Your task to perform on an android device: Search for razer naga on ebay.com, select the first entry, and add it to the cart. Image 0: 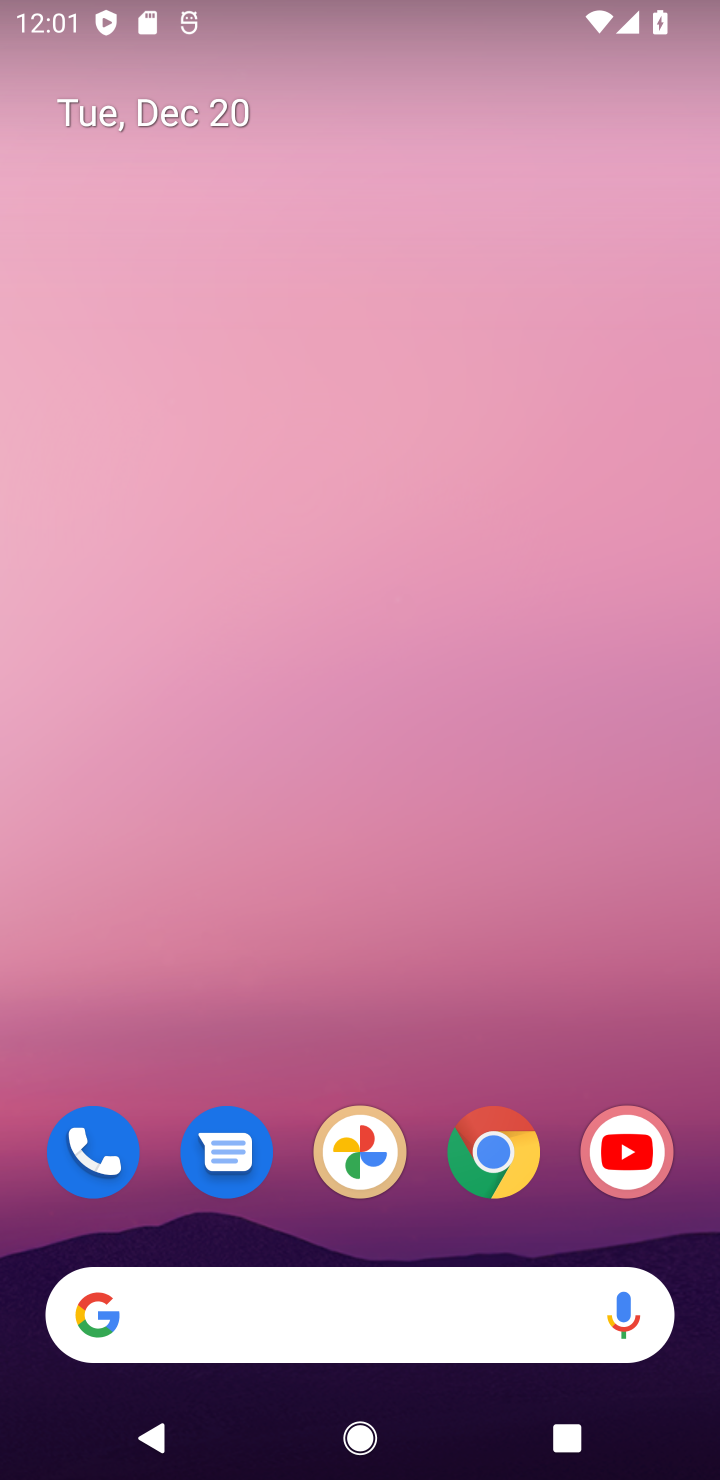
Step 0: click (487, 1167)
Your task to perform on an android device: Search for razer naga on ebay.com, select the first entry, and add it to the cart. Image 1: 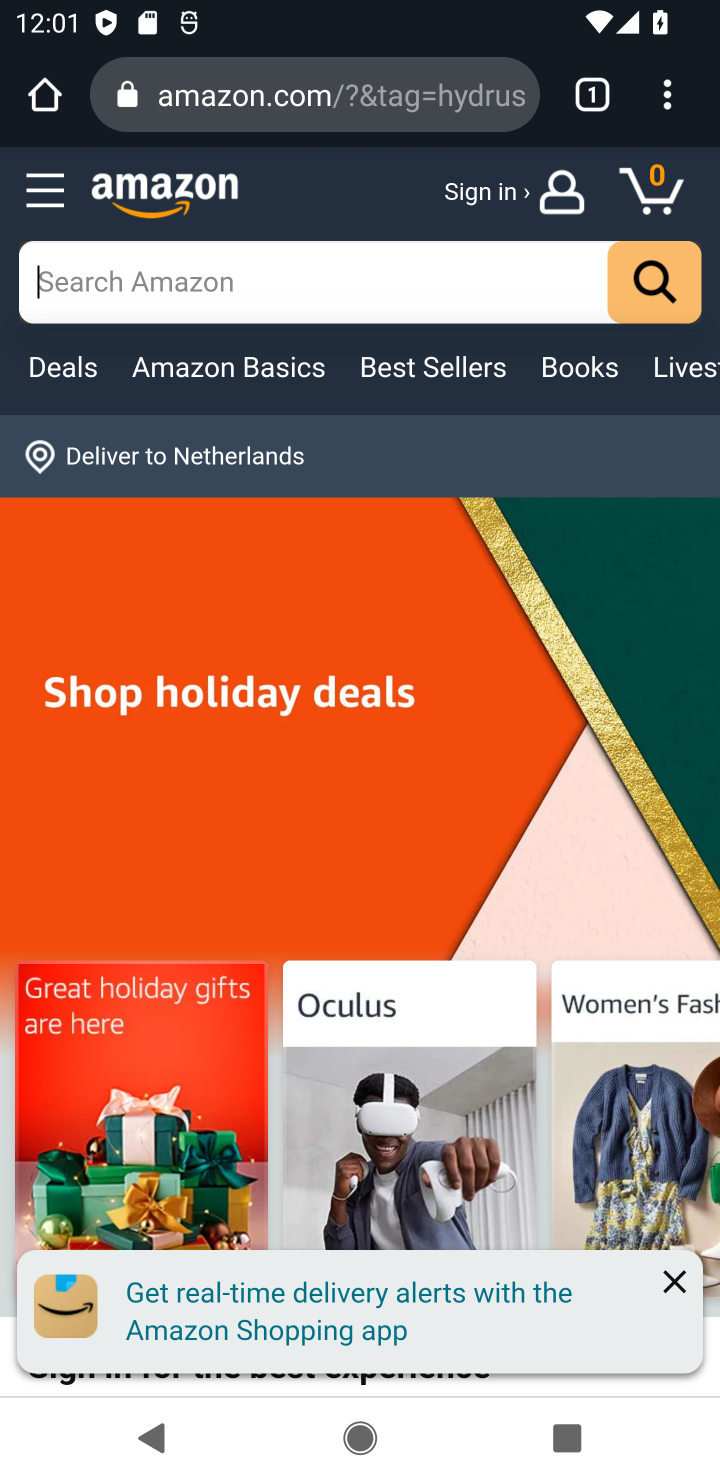
Step 1: click (321, 117)
Your task to perform on an android device: Search for razer naga on ebay.com, select the first entry, and add it to the cart. Image 2: 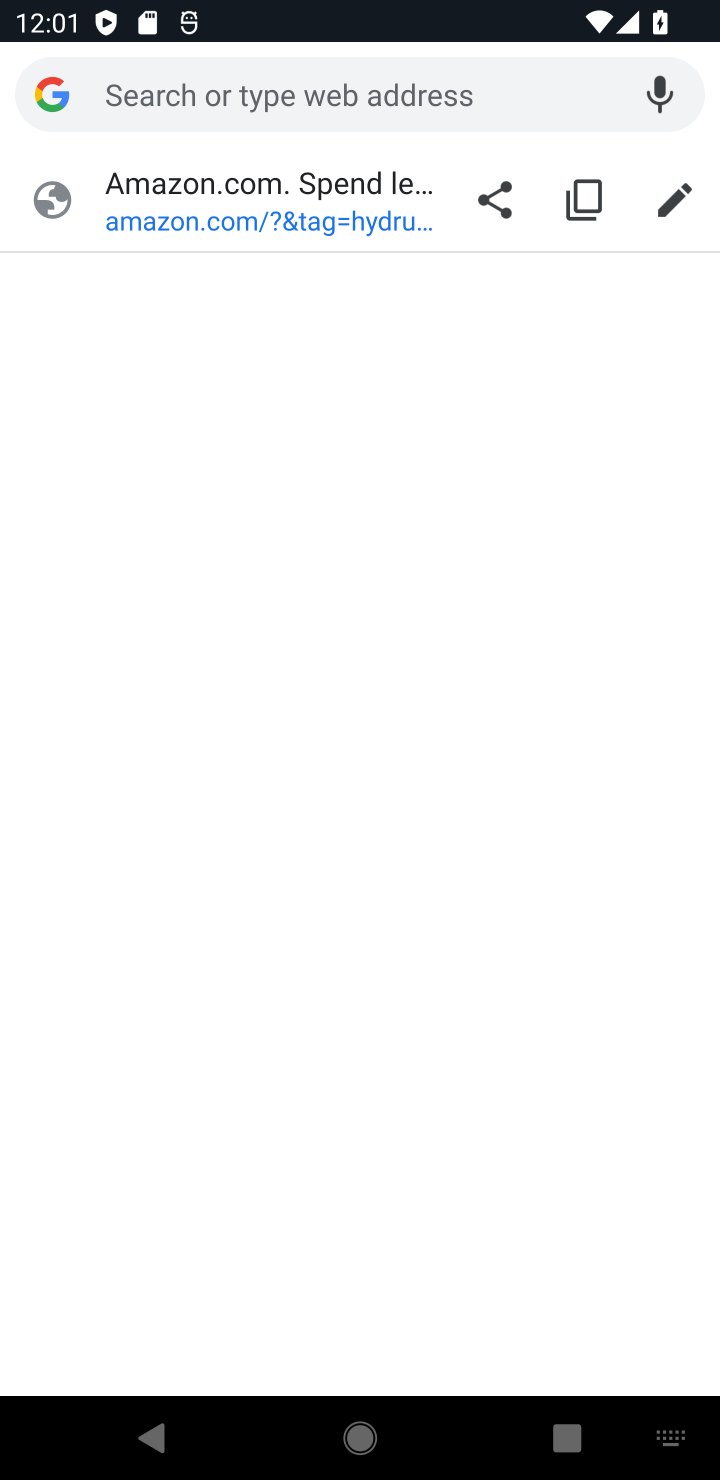
Step 2: type "ebay"
Your task to perform on an android device: Search for razer naga on ebay.com, select the first entry, and add it to the cart. Image 3: 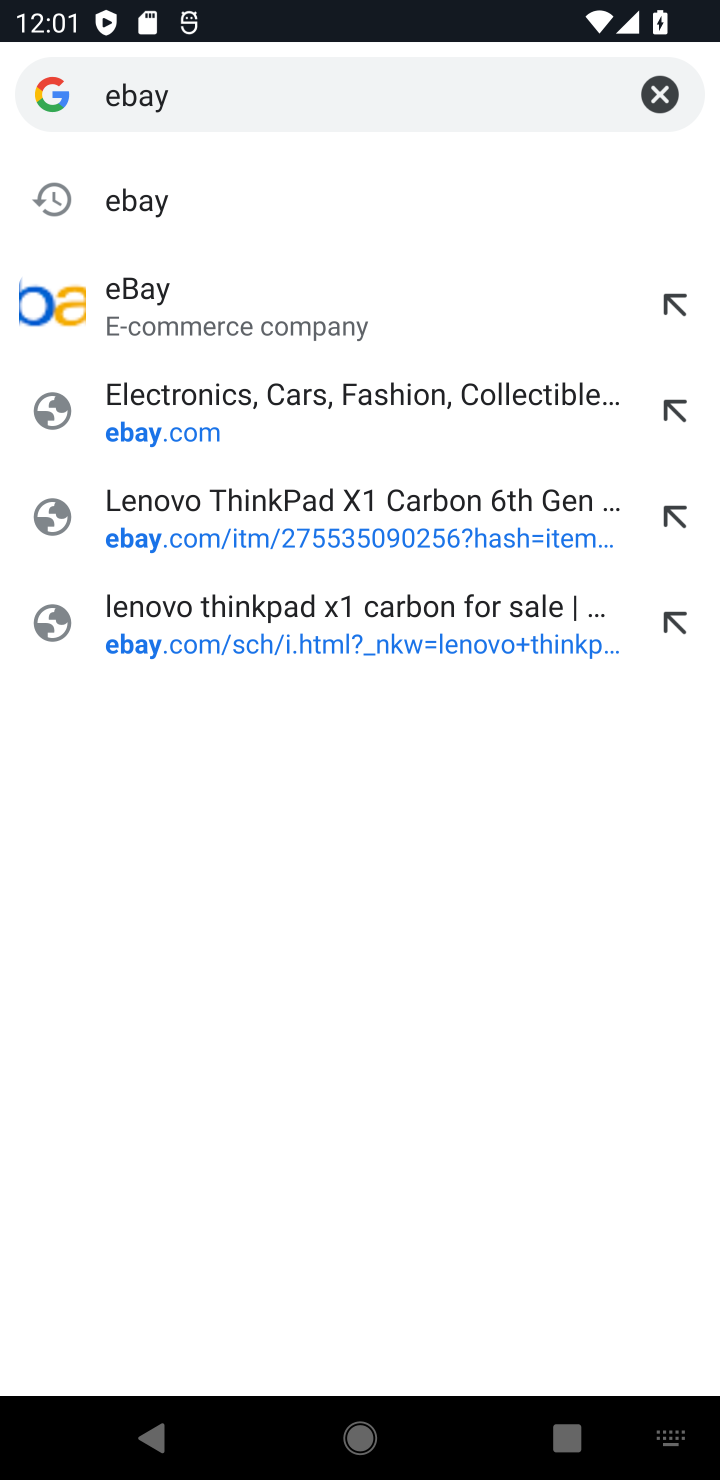
Step 3: click (325, 325)
Your task to perform on an android device: Search for razer naga on ebay.com, select the first entry, and add it to the cart. Image 4: 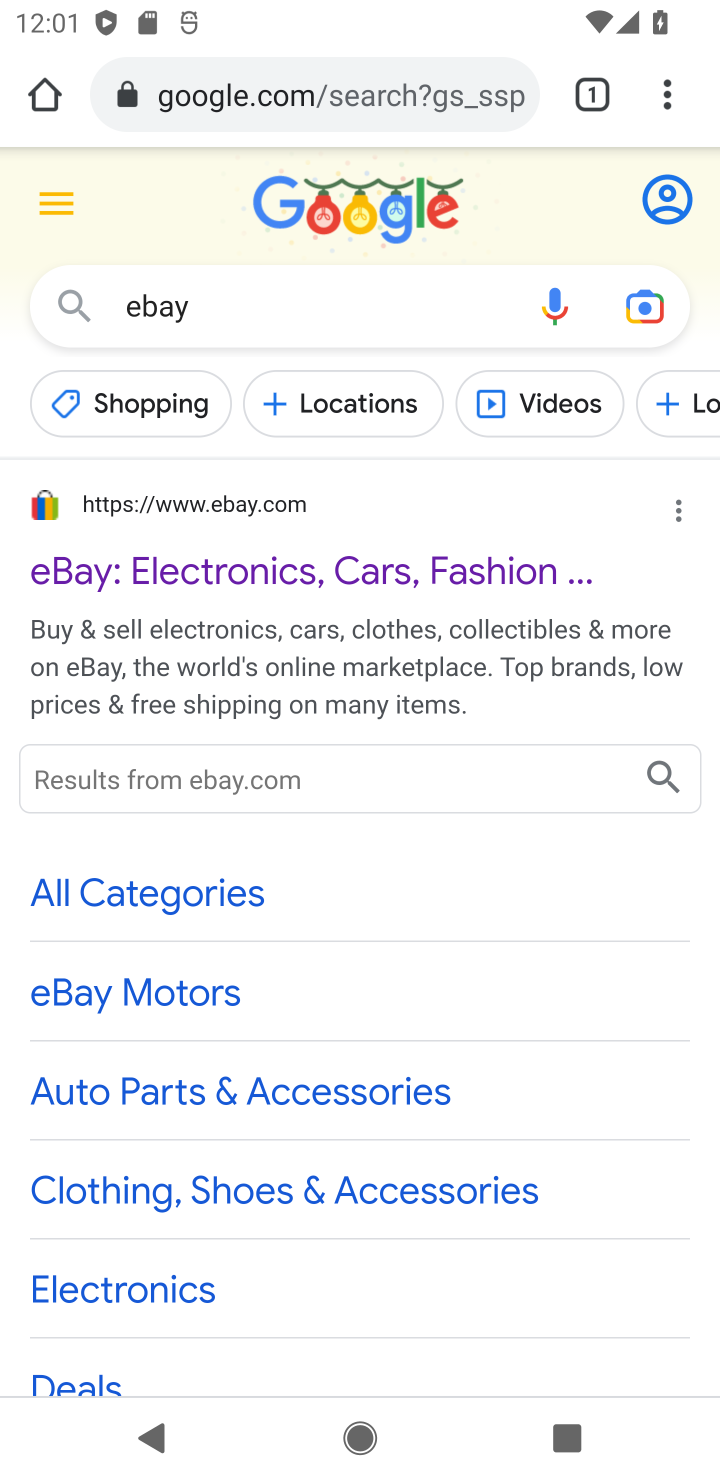
Step 4: click (241, 580)
Your task to perform on an android device: Search for razer naga on ebay.com, select the first entry, and add it to the cart. Image 5: 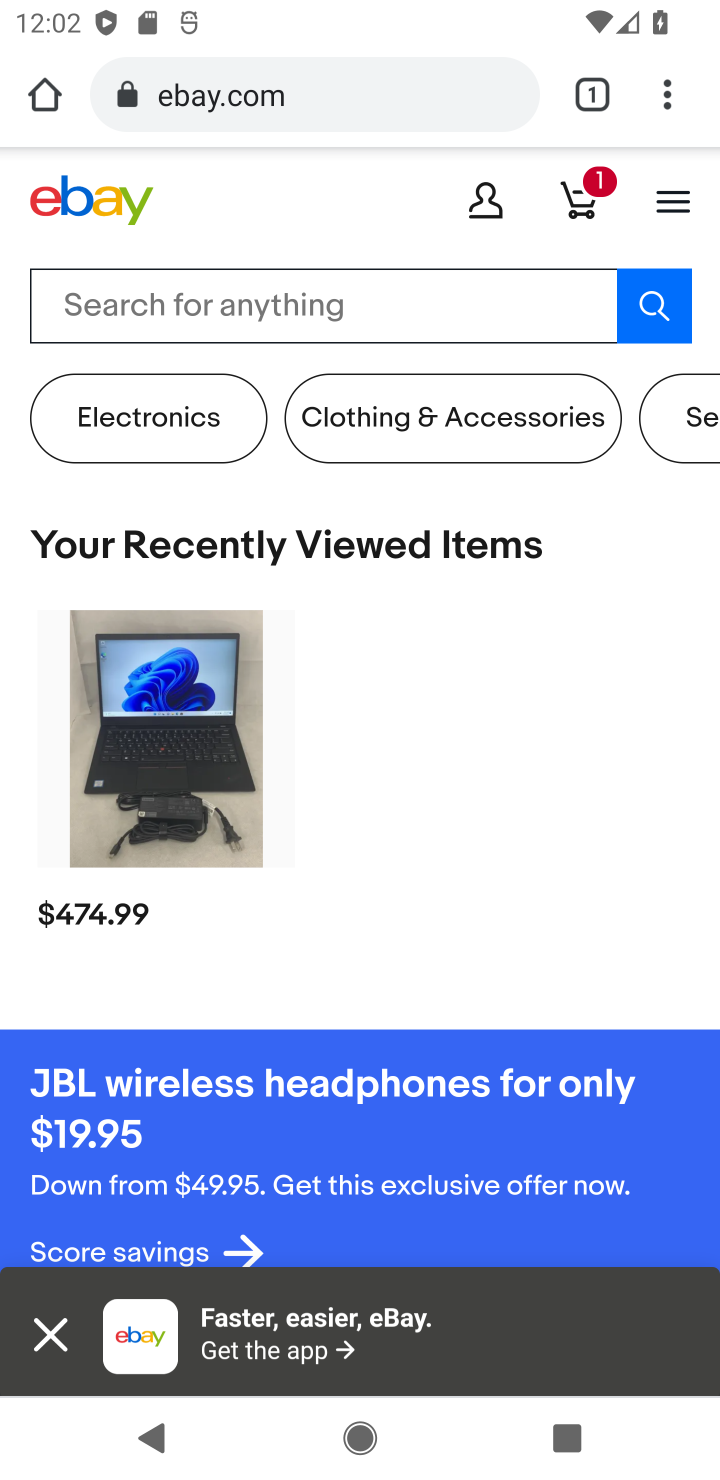
Step 5: click (501, 293)
Your task to perform on an android device: Search for razer naga on ebay.com, select the first entry, and add it to the cart. Image 6: 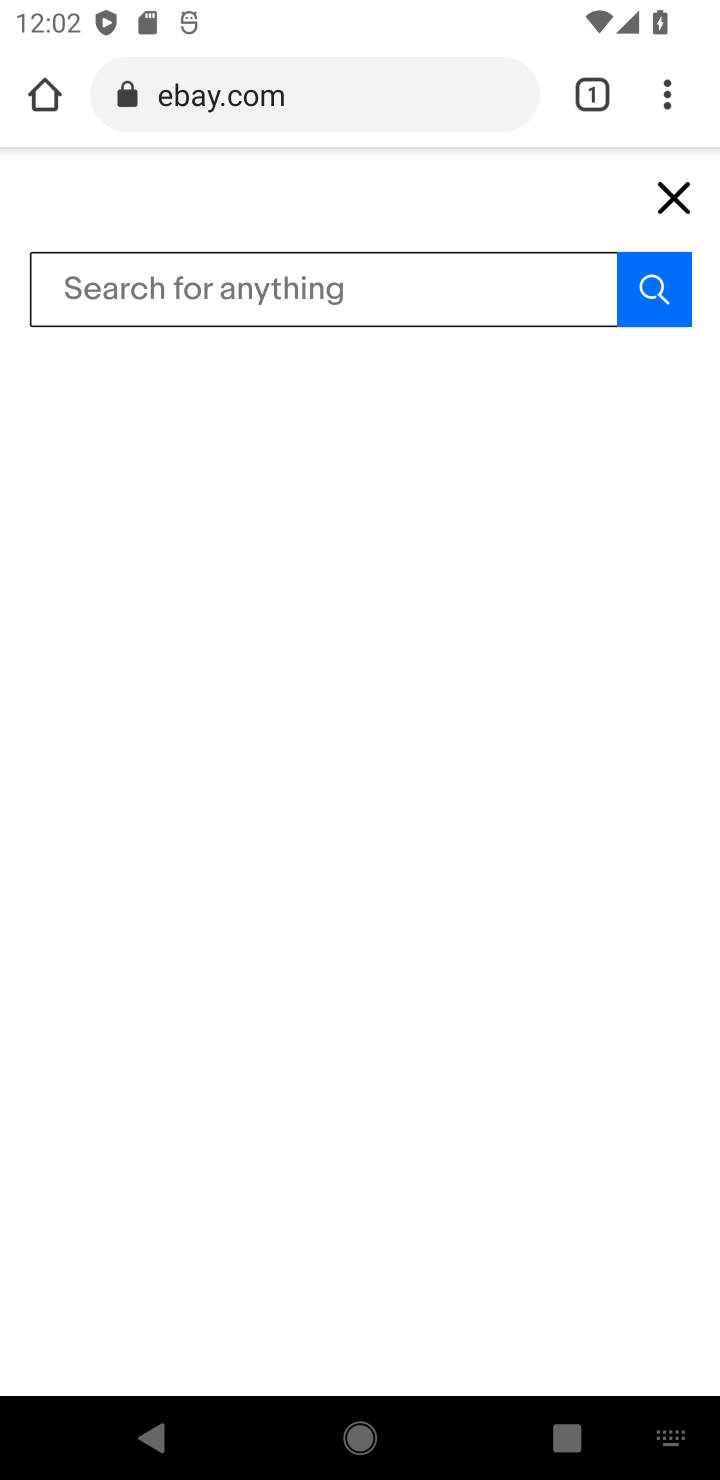
Step 6: type "razer naga"
Your task to perform on an android device: Search for razer naga on ebay.com, select the first entry, and add it to the cart. Image 7: 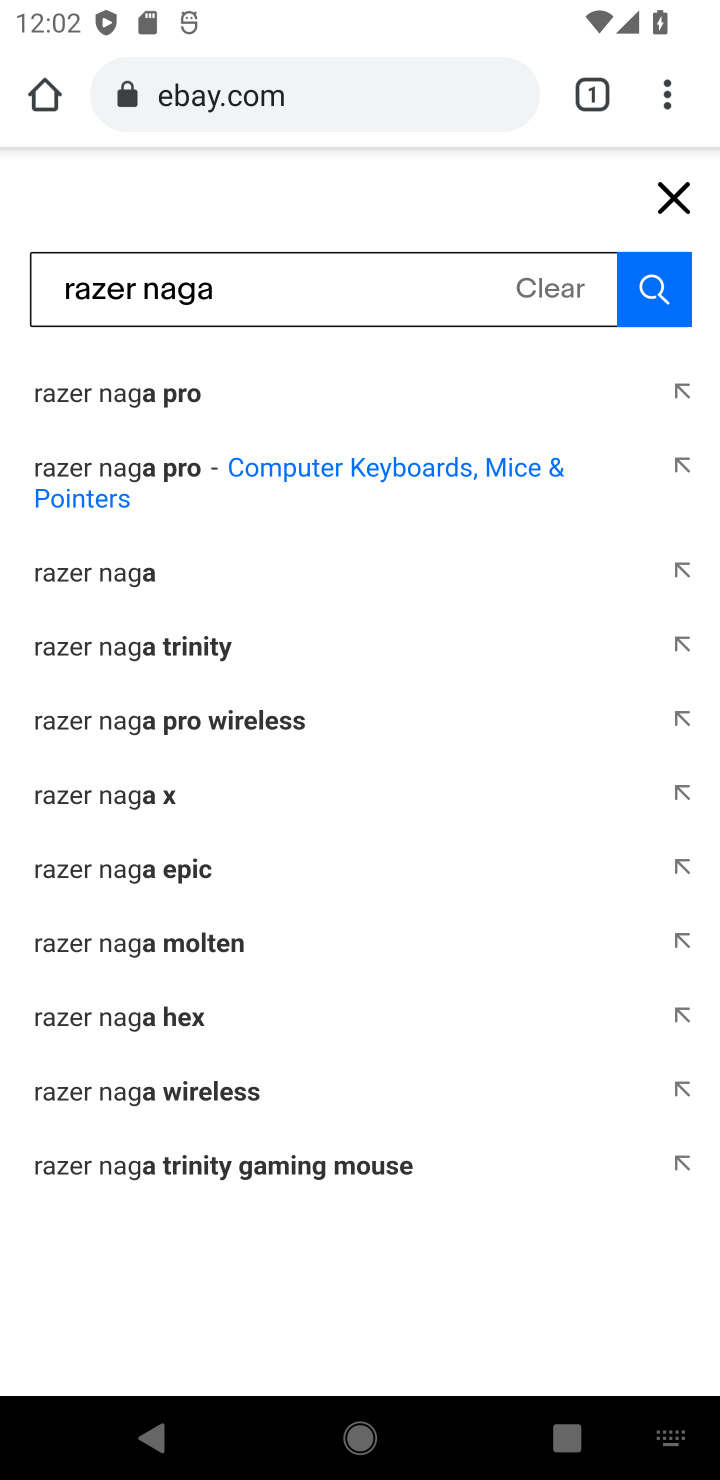
Step 7: click (201, 393)
Your task to perform on an android device: Search for razer naga on ebay.com, select the first entry, and add it to the cart. Image 8: 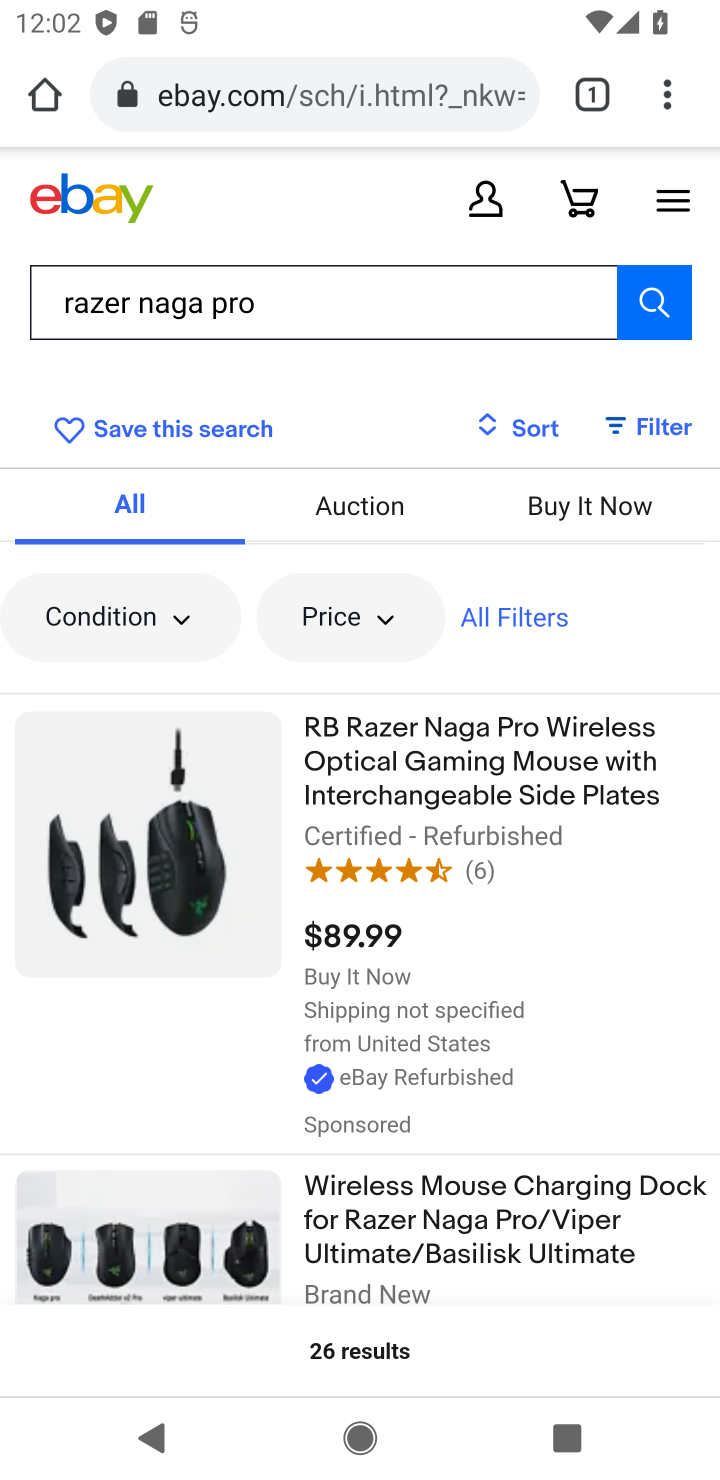
Step 8: click (426, 782)
Your task to perform on an android device: Search for razer naga on ebay.com, select the first entry, and add it to the cart. Image 9: 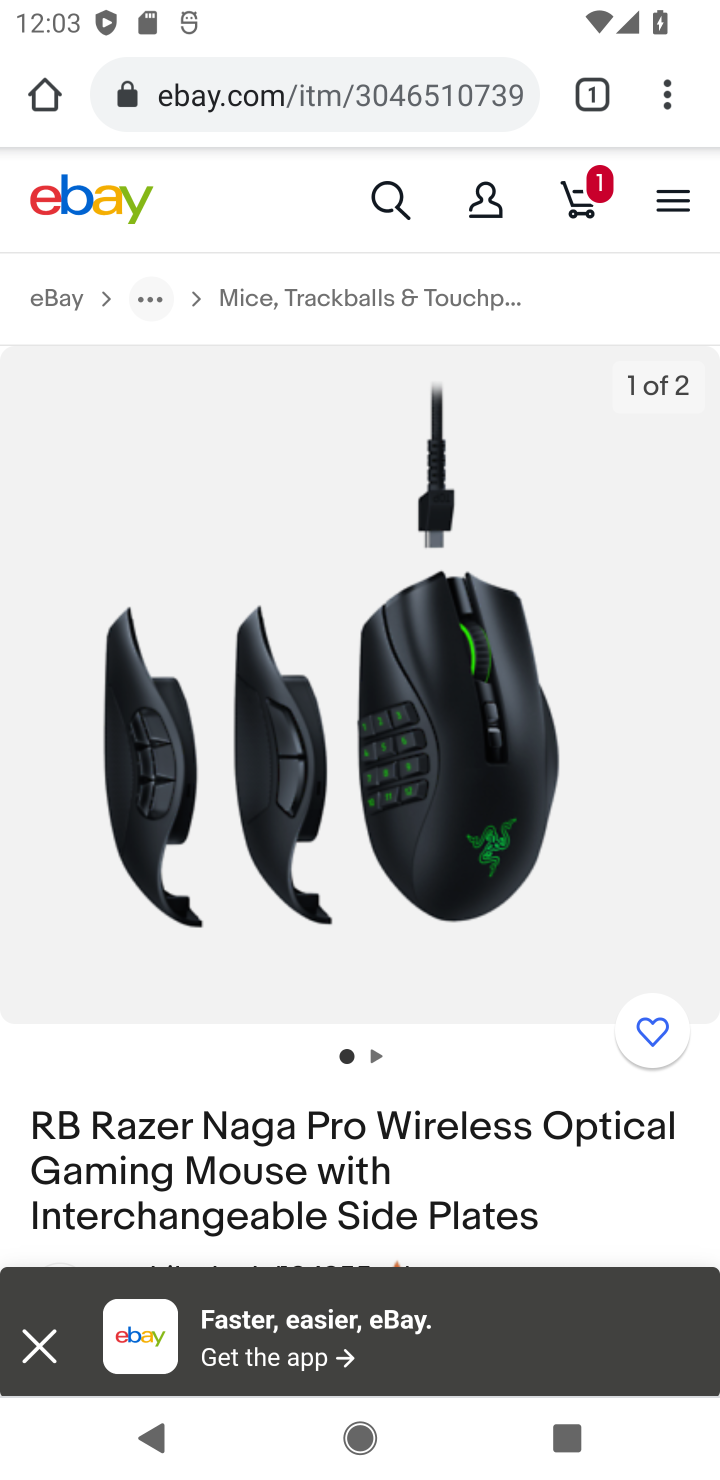
Step 9: drag from (499, 1144) to (477, 594)
Your task to perform on an android device: Search for razer naga on ebay.com, select the first entry, and add it to the cart. Image 10: 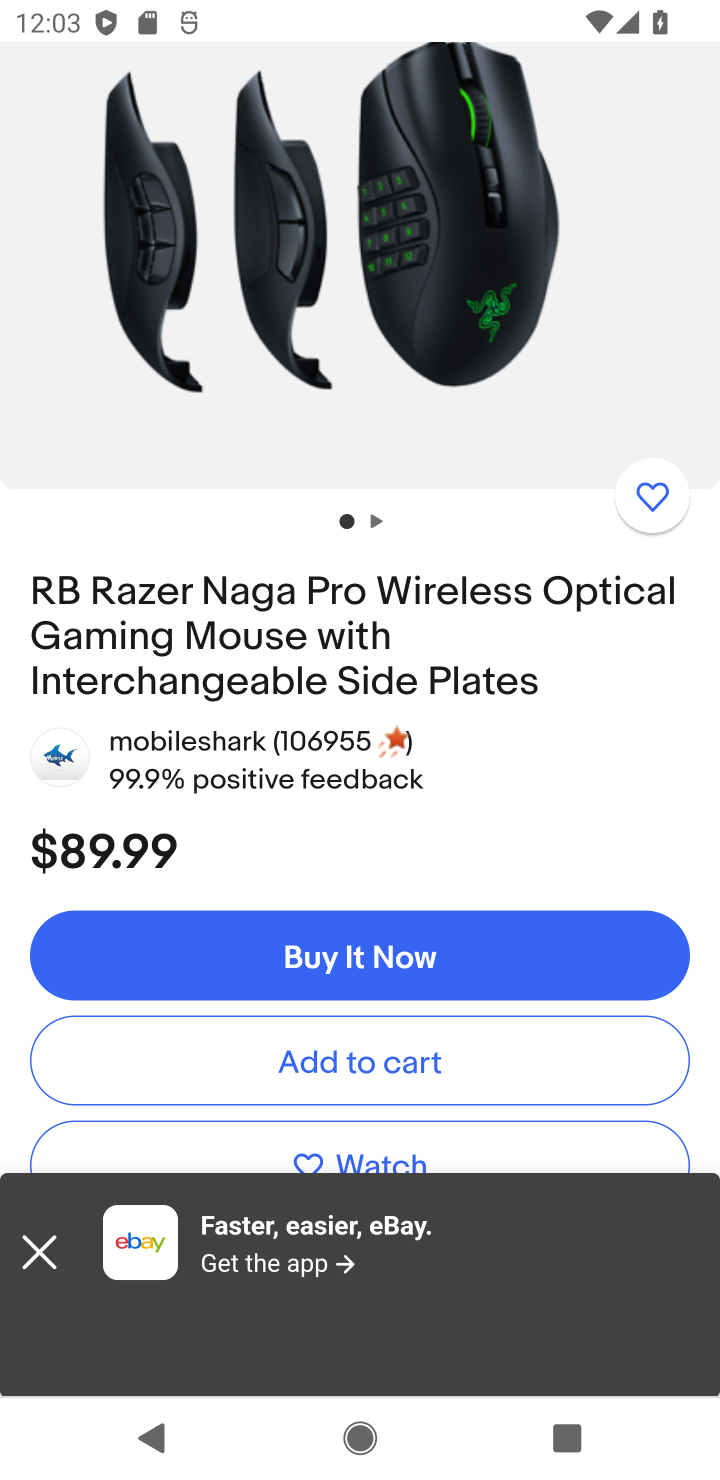
Step 10: click (365, 1065)
Your task to perform on an android device: Search for razer naga on ebay.com, select the first entry, and add it to the cart. Image 11: 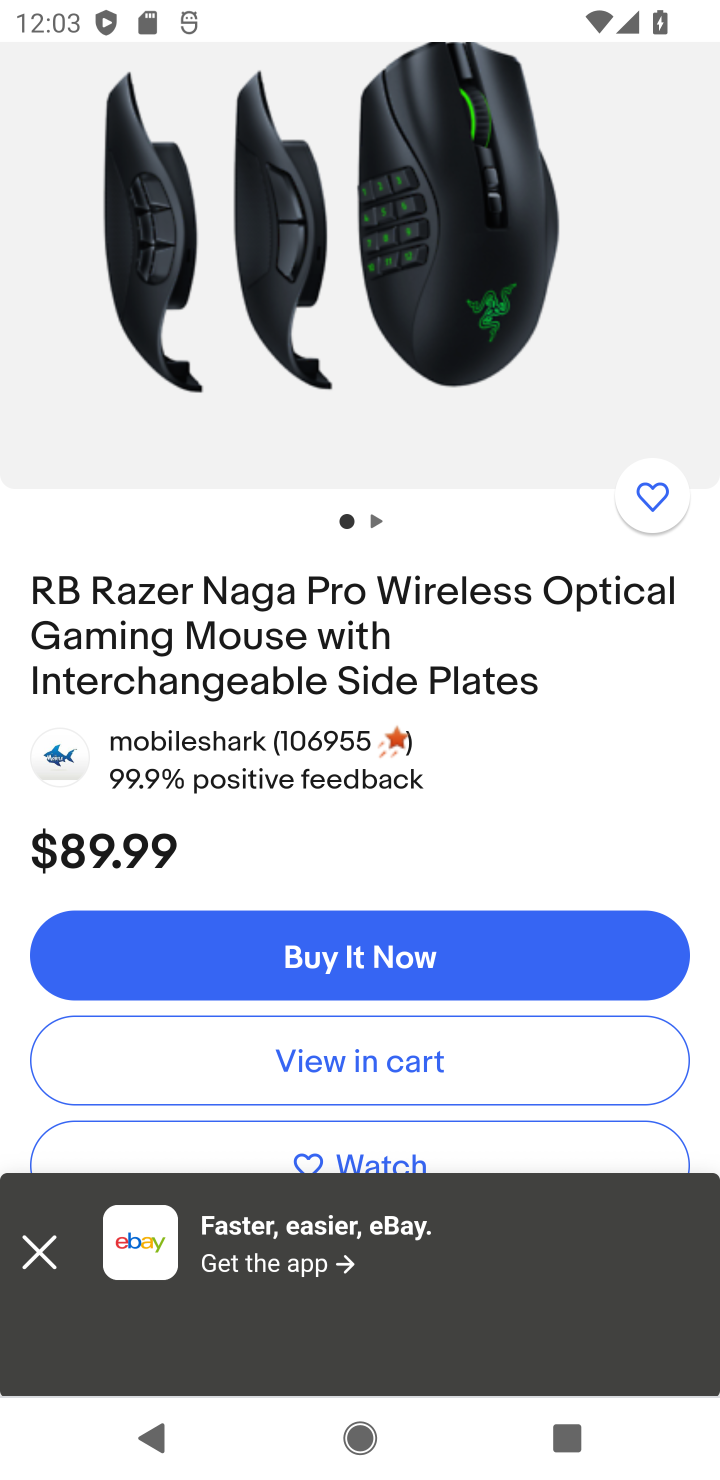
Step 11: click (365, 1065)
Your task to perform on an android device: Search for razer naga on ebay.com, select the first entry, and add it to the cart. Image 12: 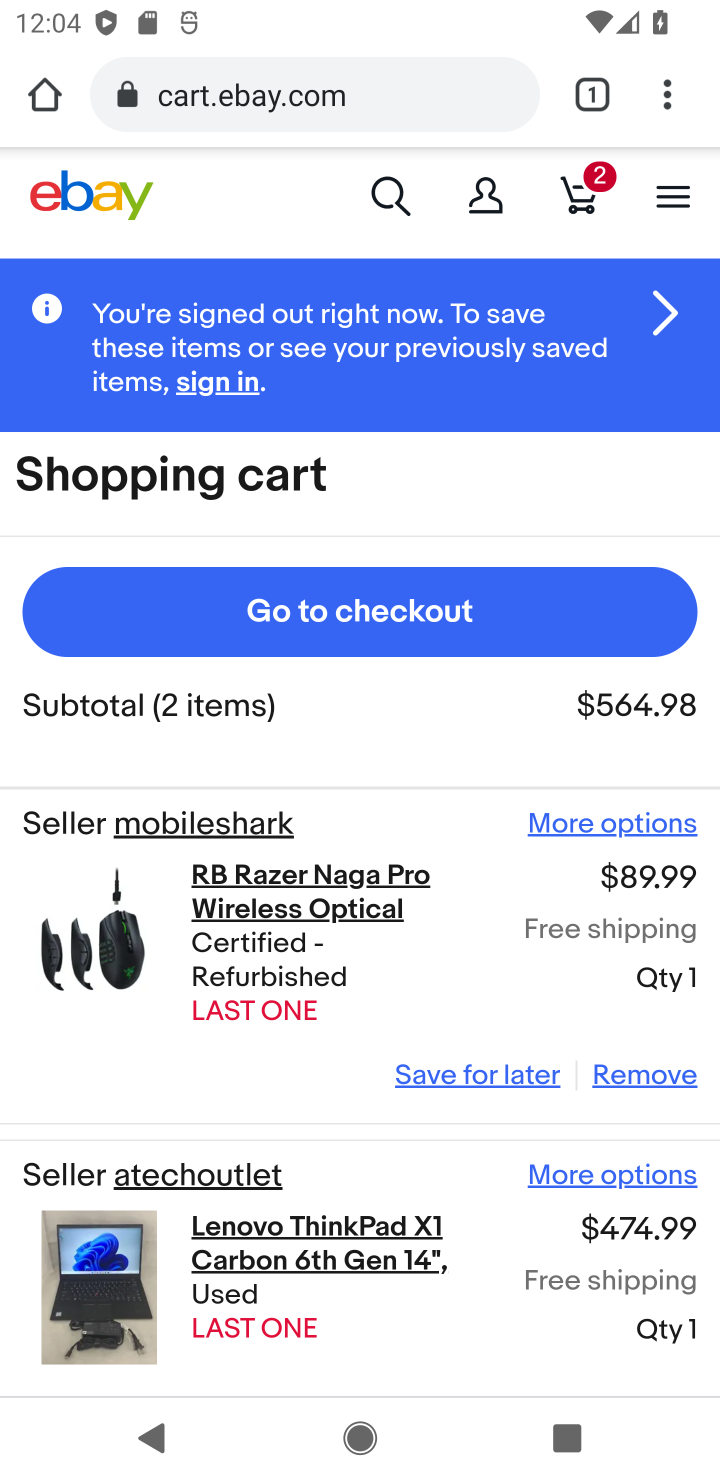
Step 12: click (632, 1075)
Your task to perform on an android device: Search for razer naga on ebay.com, select the first entry, and add it to the cart. Image 13: 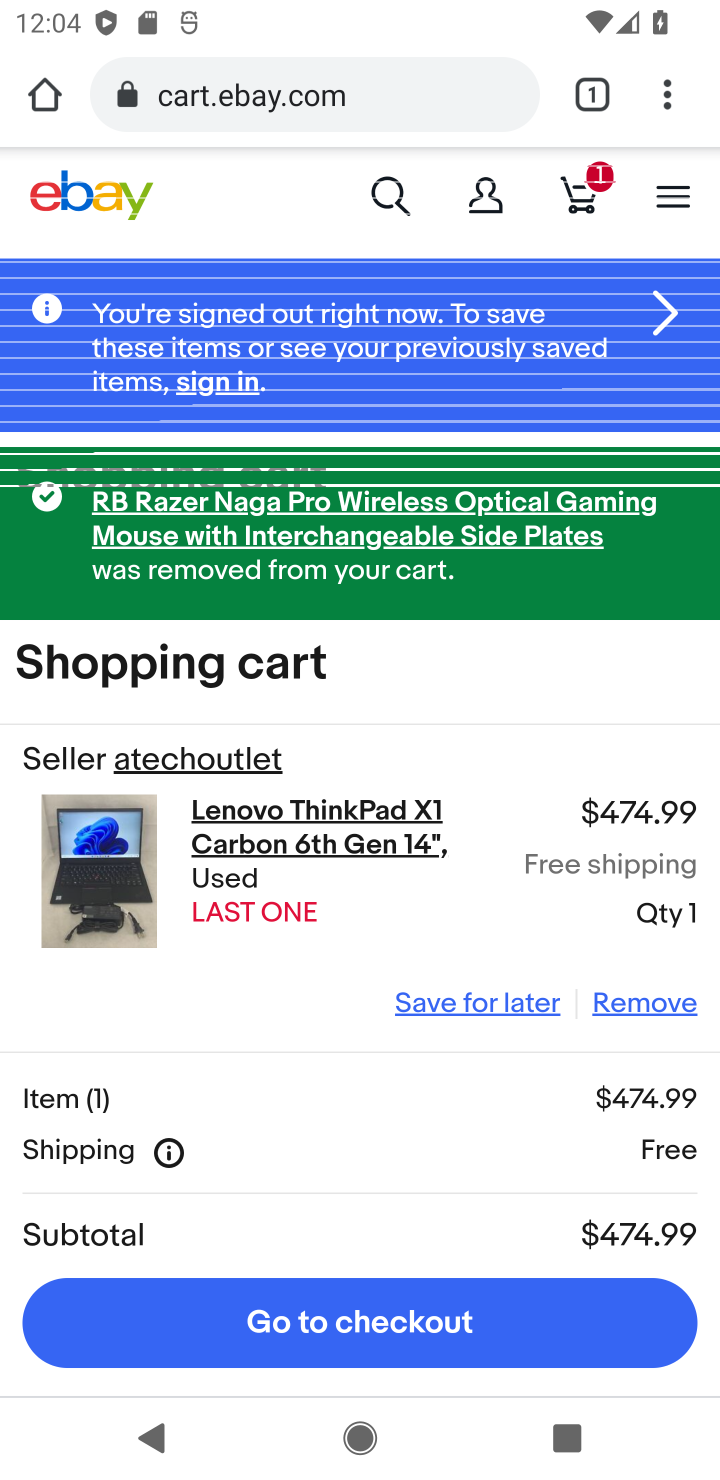
Step 13: click (632, 1002)
Your task to perform on an android device: Search for razer naga on ebay.com, select the first entry, and add it to the cart. Image 14: 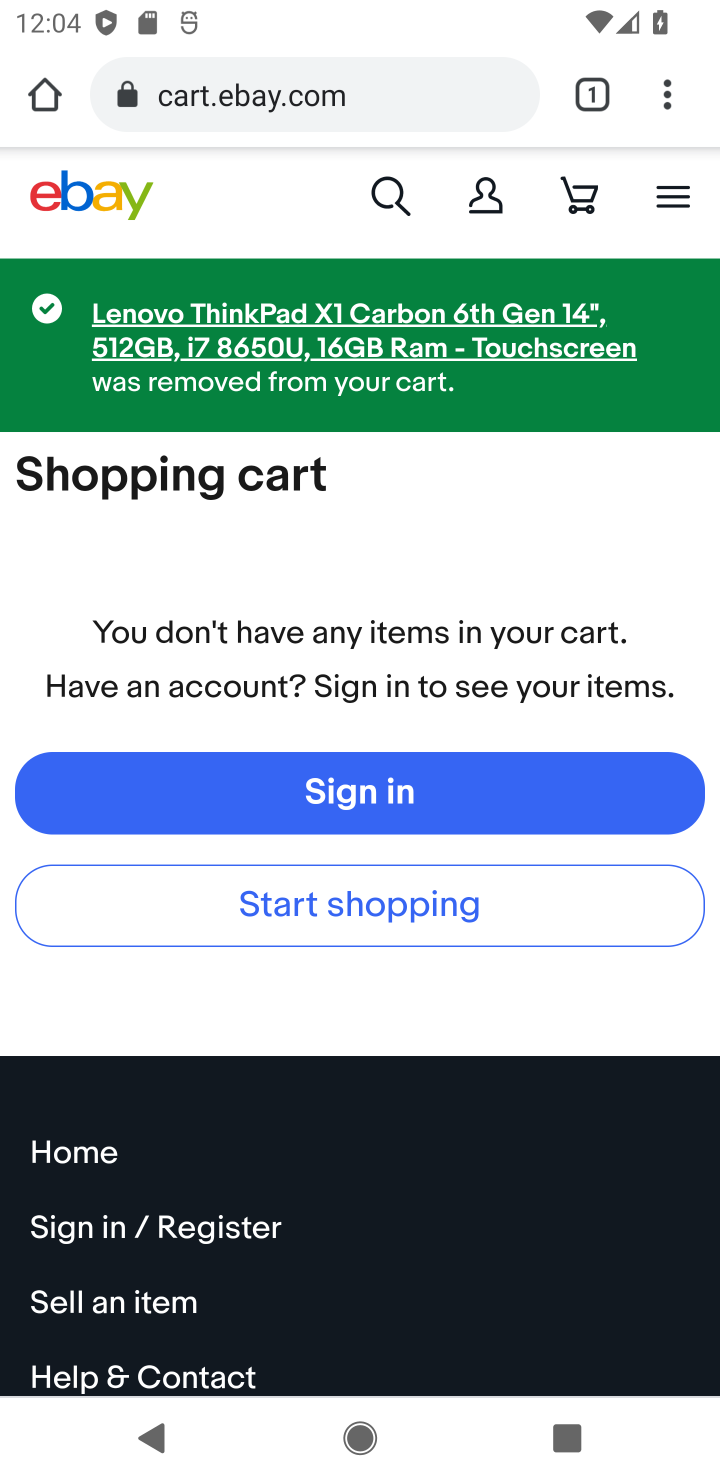
Step 14: task complete